Your task to perform on an android device: allow cookies in the chrome app Image 0: 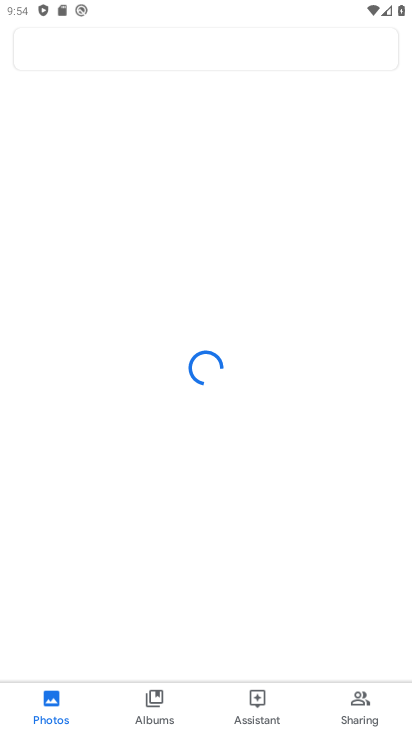
Step 0: press home button
Your task to perform on an android device: allow cookies in the chrome app Image 1: 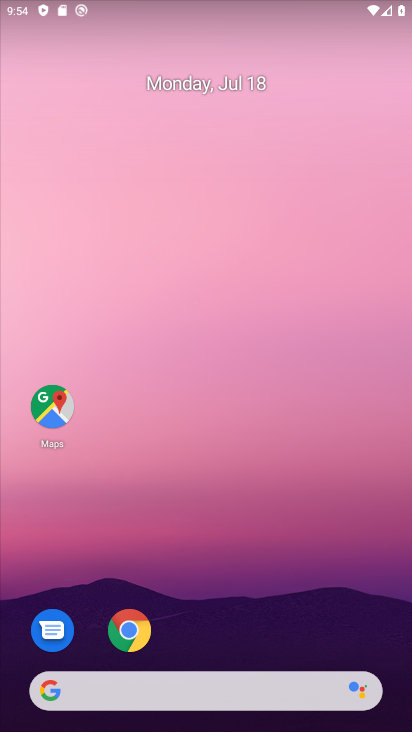
Step 1: click (129, 637)
Your task to perform on an android device: allow cookies in the chrome app Image 2: 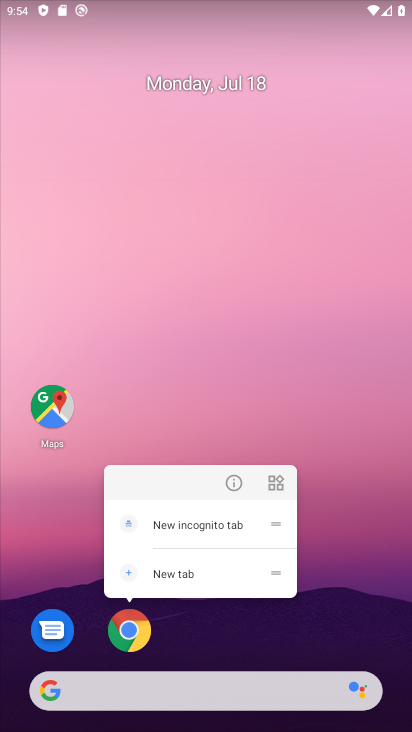
Step 2: click (129, 637)
Your task to perform on an android device: allow cookies in the chrome app Image 3: 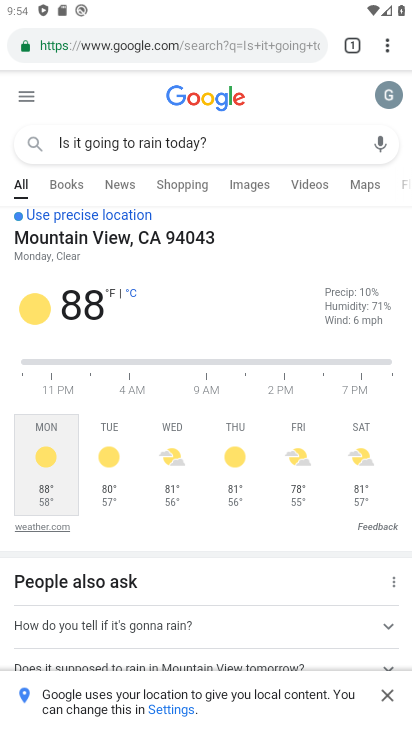
Step 3: drag from (391, 37) to (192, 518)
Your task to perform on an android device: allow cookies in the chrome app Image 4: 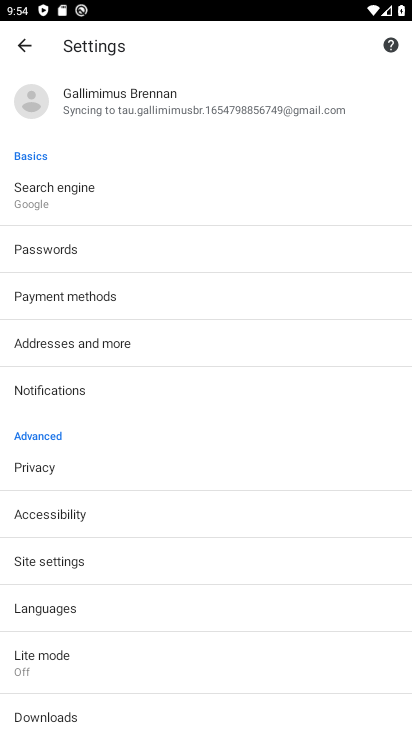
Step 4: click (91, 571)
Your task to perform on an android device: allow cookies in the chrome app Image 5: 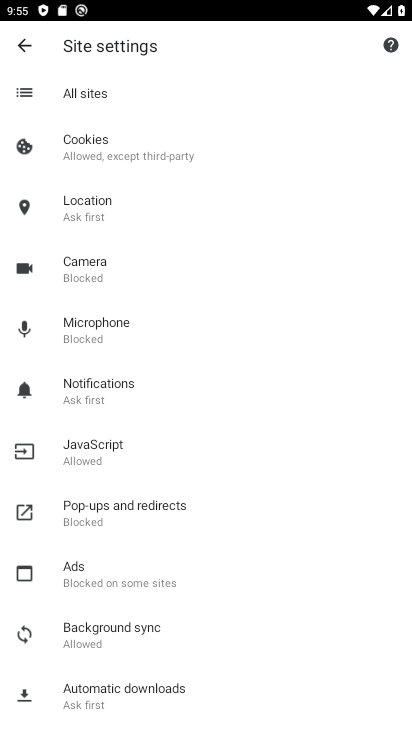
Step 5: click (111, 133)
Your task to perform on an android device: allow cookies in the chrome app Image 6: 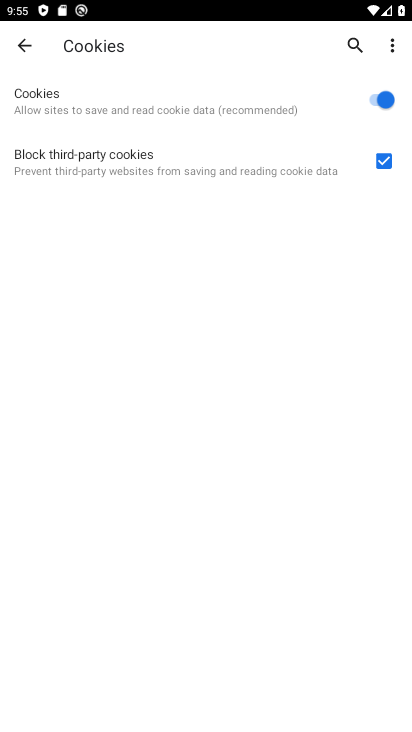
Step 6: task complete